Your task to perform on an android device: Go to Wikipedia Image 0: 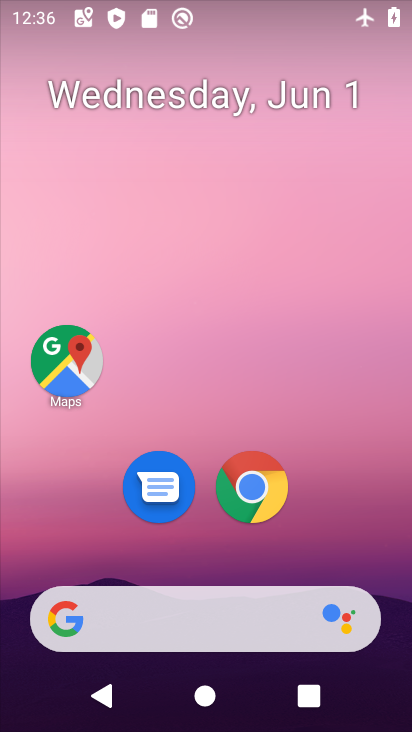
Step 0: click (238, 471)
Your task to perform on an android device: Go to Wikipedia Image 1: 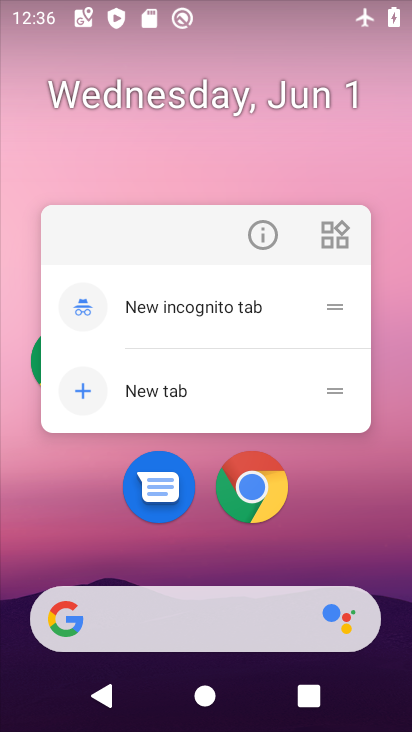
Step 1: click (253, 486)
Your task to perform on an android device: Go to Wikipedia Image 2: 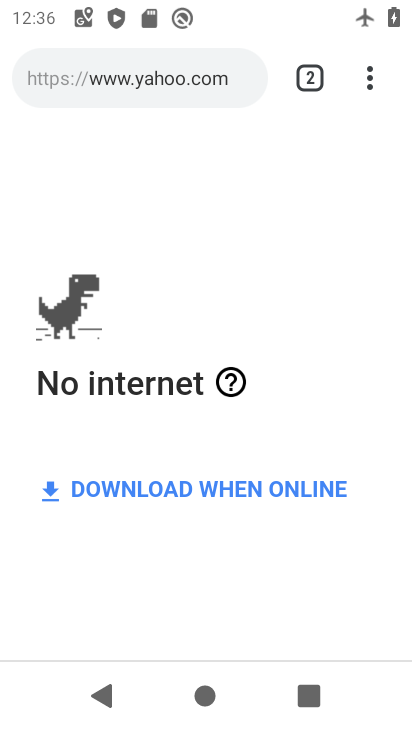
Step 2: click (366, 77)
Your task to perform on an android device: Go to Wikipedia Image 3: 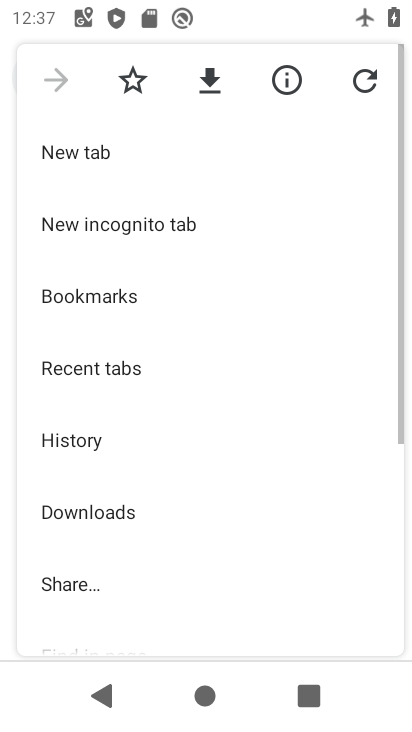
Step 3: click (104, 149)
Your task to perform on an android device: Go to Wikipedia Image 4: 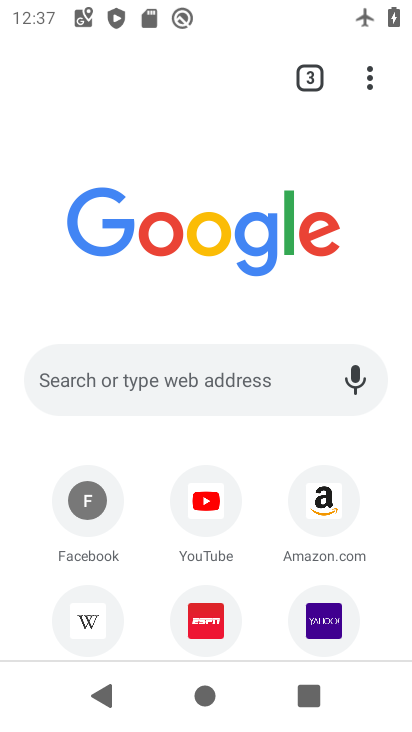
Step 4: drag from (249, 605) to (253, 410)
Your task to perform on an android device: Go to Wikipedia Image 5: 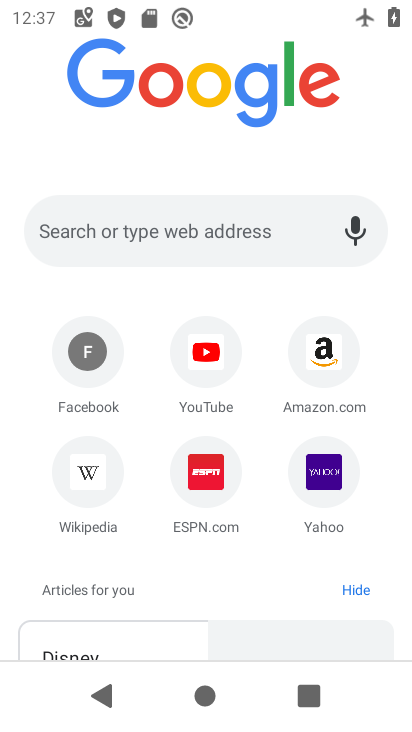
Step 5: click (80, 477)
Your task to perform on an android device: Go to Wikipedia Image 6: 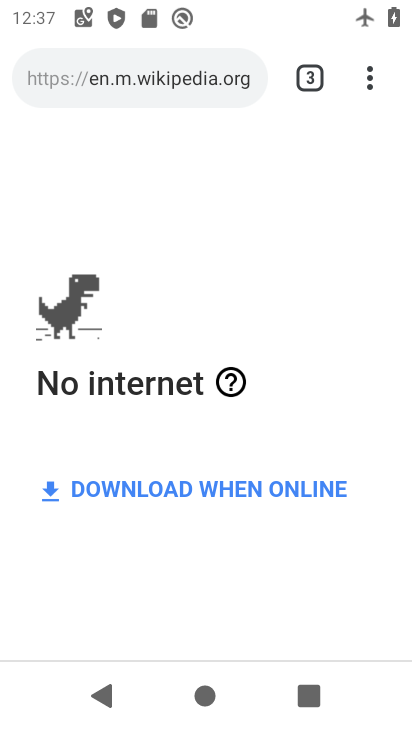
Step 6: task complete